Your task to perform on an android device: Open network settings Image 0: 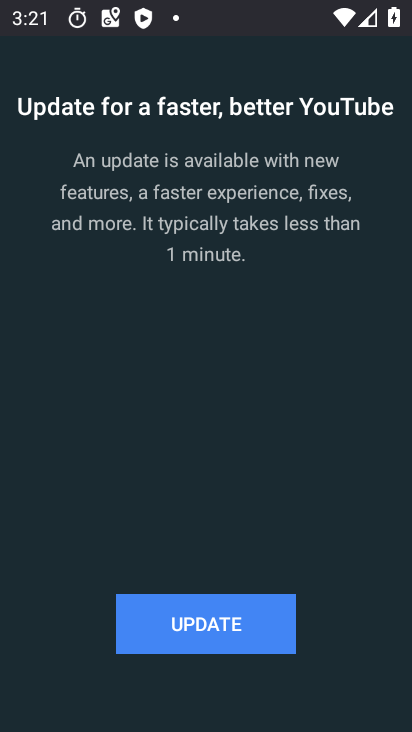
Step 0: press home button
Your task to perform on an android device: Open network settings Image 1: 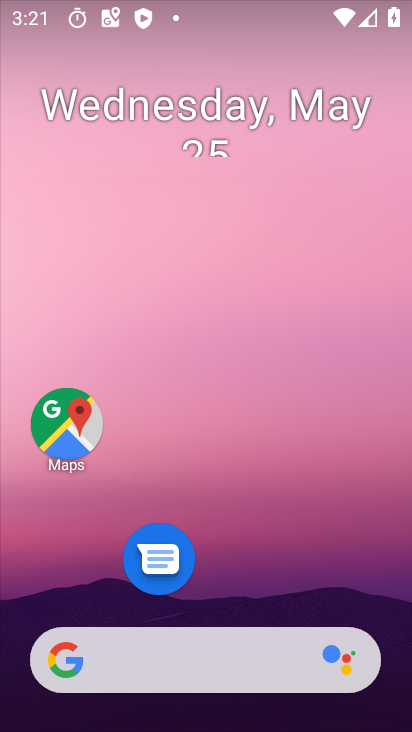
Step 1: drag from (220, 604) to (262, 12)
Your task to perform on an android device: Open network settings Image 2: 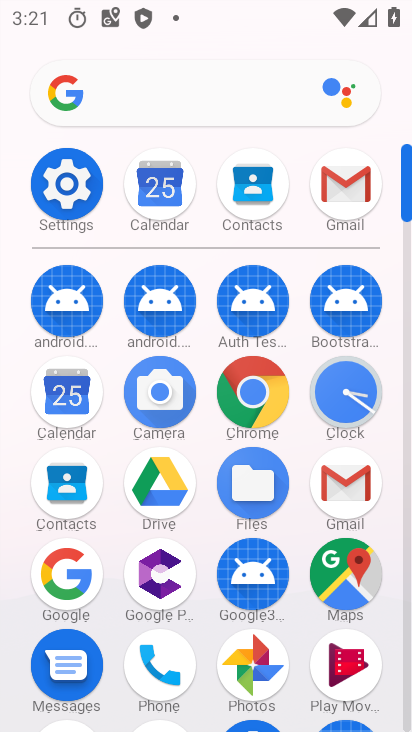
Step 2: click (60, 175)
Your task to perform on an android device: Open network settings Image 3: 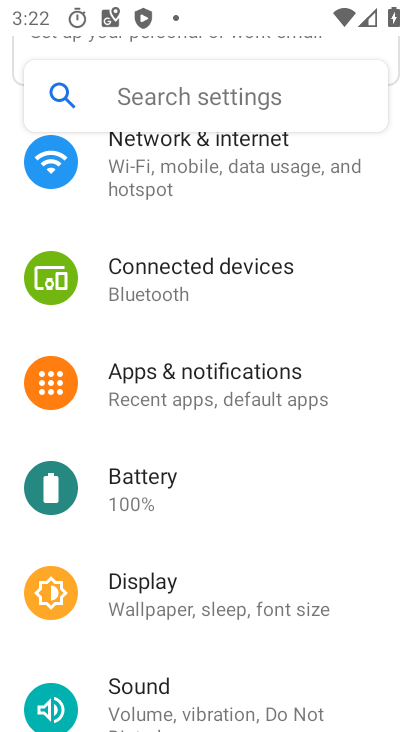
Step 3: click (177, 164)
Your task to perform on an android device: Open network settings Image 4: 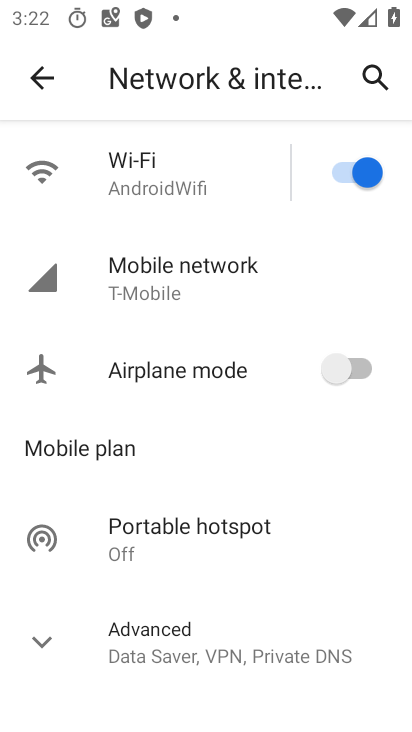
Step 4: click (36, 632)
Your task to perform on an android device: Open network settings Image 5: 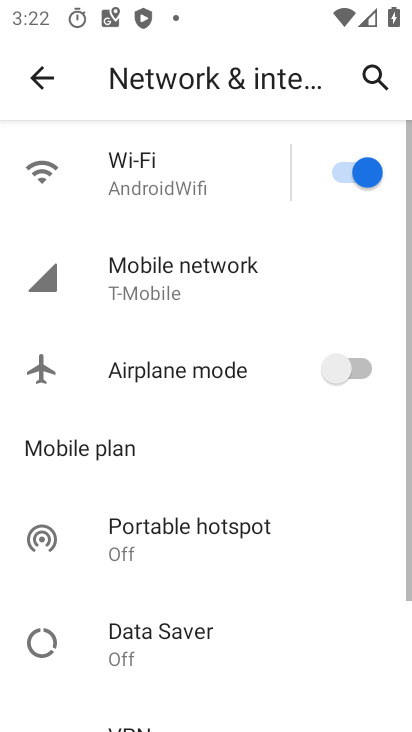
Step 5: task complete